Your task to perform on an android device: See recent photos Image 0: 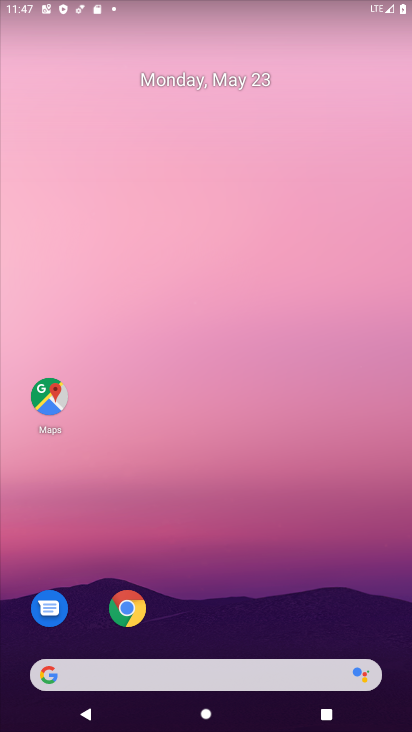
Step 0: press home button
Your task to perform on an android device: See recent photos Image 1: 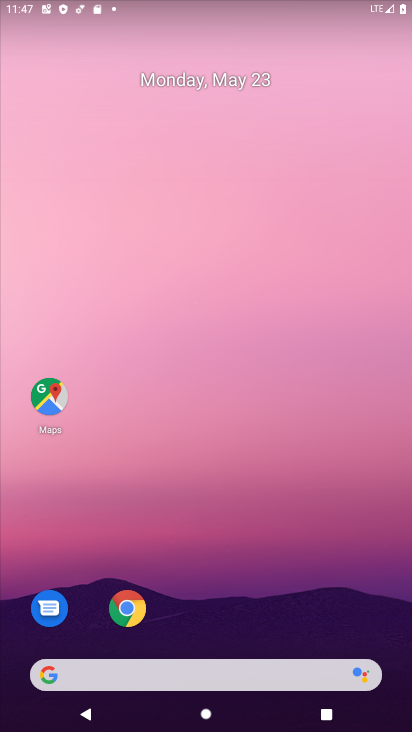
Step 1: drag from (224, 636) to (274, 55)
Your task to perform on an android device: See recent photos Image 2: 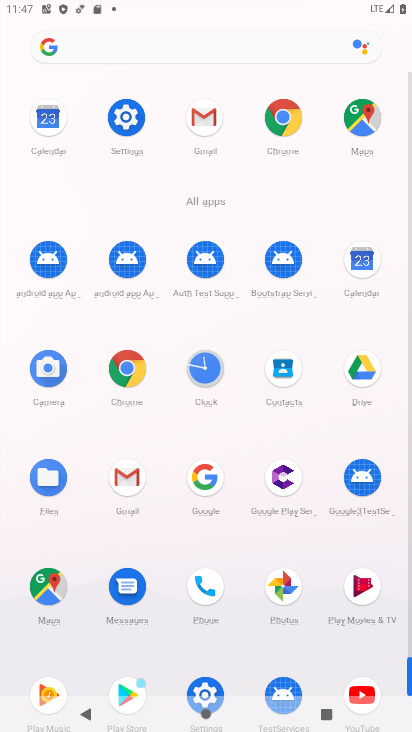
Step 2: click (283, 580)
Your task to perform on an android device: See recent photos Image 3: 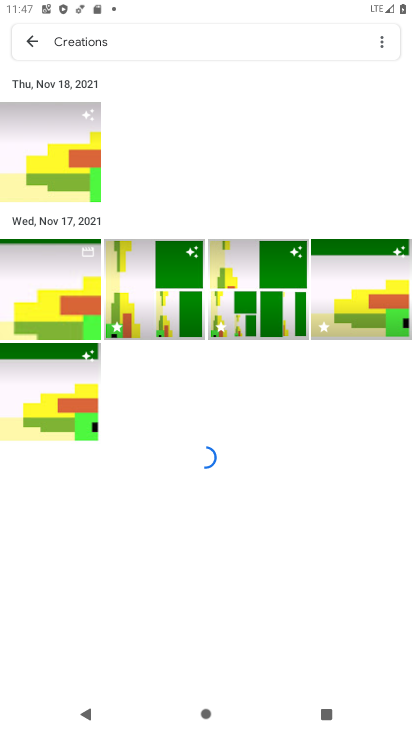
Step 3: click (38, 40)
Your task to perform on an android device: See recent photos Image 4: 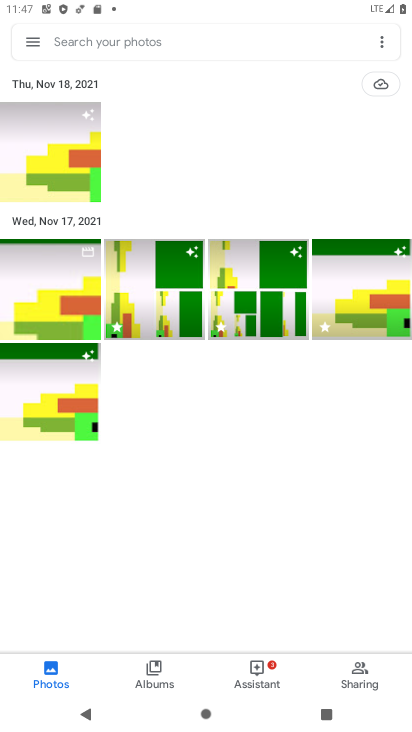
Step 4: task complete